Your task to perform on an android device: Go to Google Image 0: 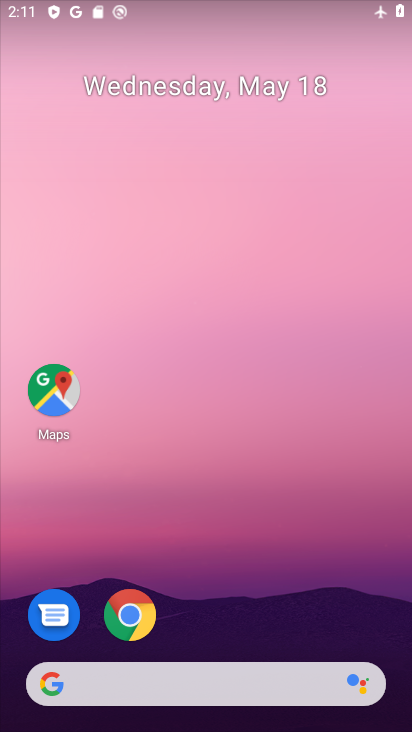
Step 0: drag from (209, 612) to (287, 191)
Your task to perform on an android device: Go to Google Image 1: 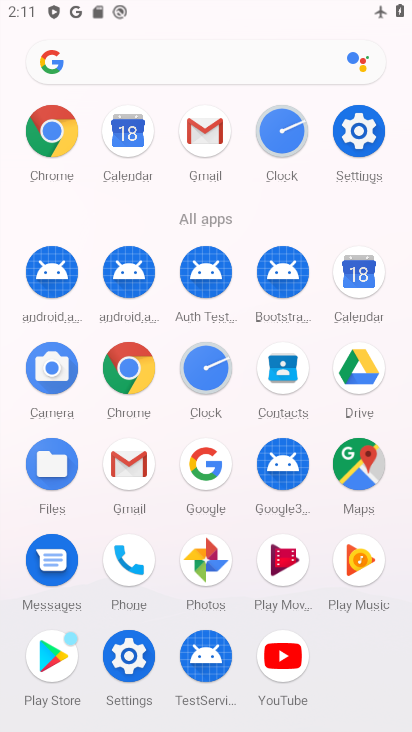
Step 1: click (207, 462)
Your task to perform on an android device: Go to Google Image 2: 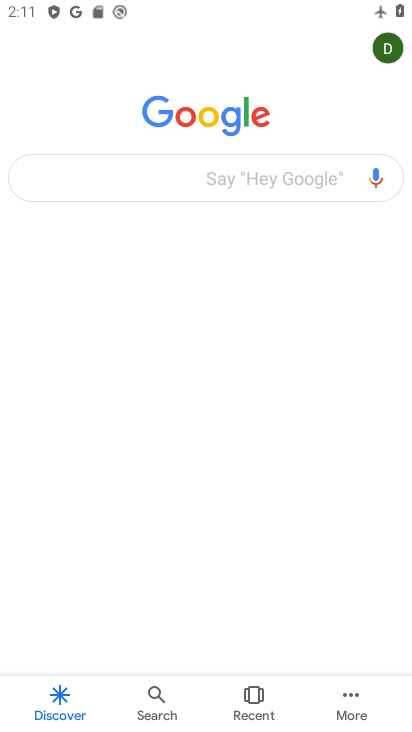
Step 2: task complete